Your task to perform on an android device: install app "Upside-Cash back on gas & food" Image 0: 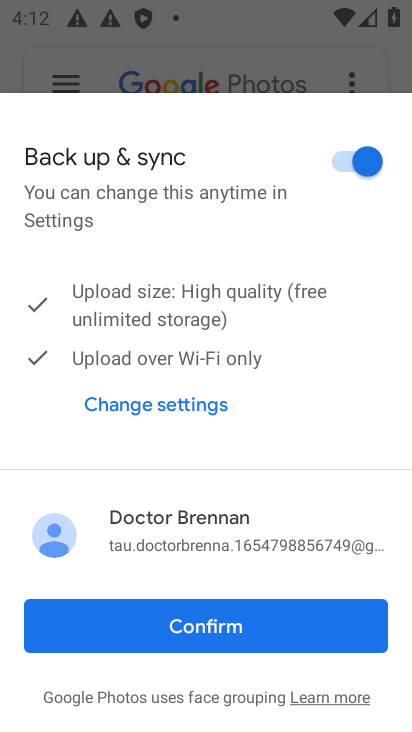
Step 0: press home button
Your task to perform on an android device: install app "Upside-Cash back on gas & food" Image 1: 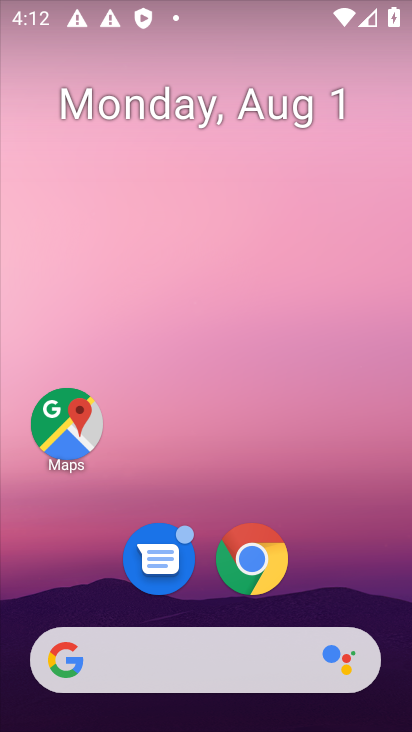
Step 1: drag from (203, 600) to (167, 0)
Your task to perform on an android device: install app "Upside-Cash back on gas & food" Image 2: 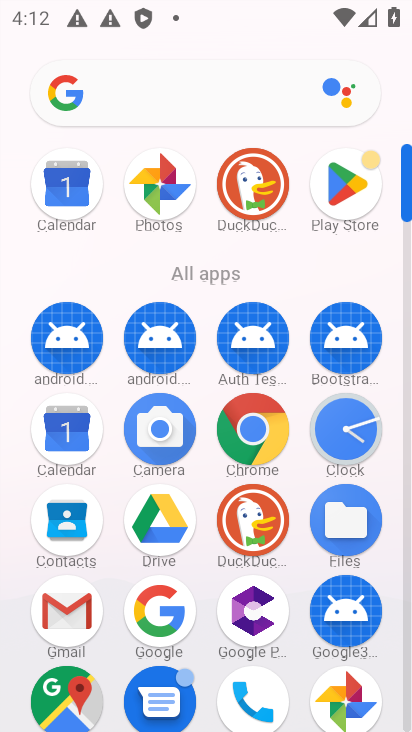
Step 2: click (321, 211)
Your task to perform on an android device: install app "Upside-Cash back on gas & food" Image 3: 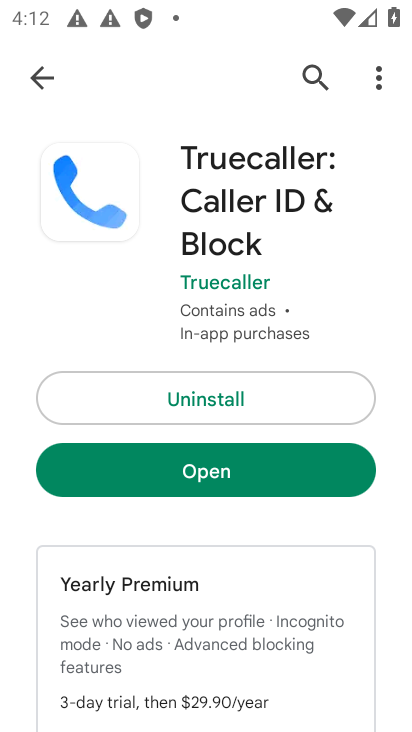
Step 3: click (55, 80)
Your task to perform on an android device: install app "Upside-Cash back on gas & food" Image 4: 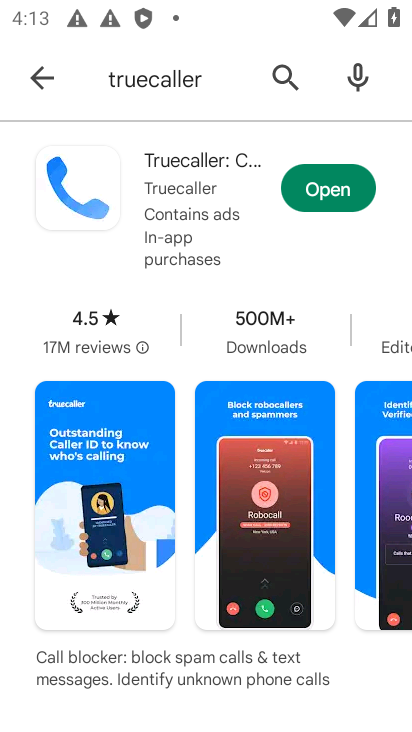
Step 4: click (153, 89)
Your task to perform on an android device: install app "Upside-Cash back on gas & food" Image 5: 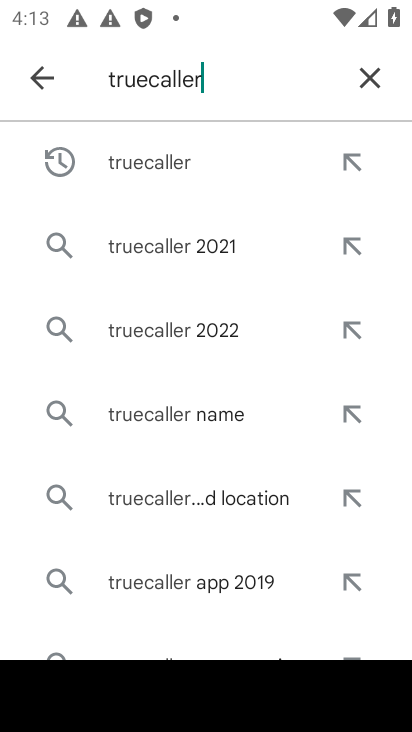
Step 5: click (363, 70)
Your task to perform on an android device: install app "Upside-Cash back on gas & food" Image 6: 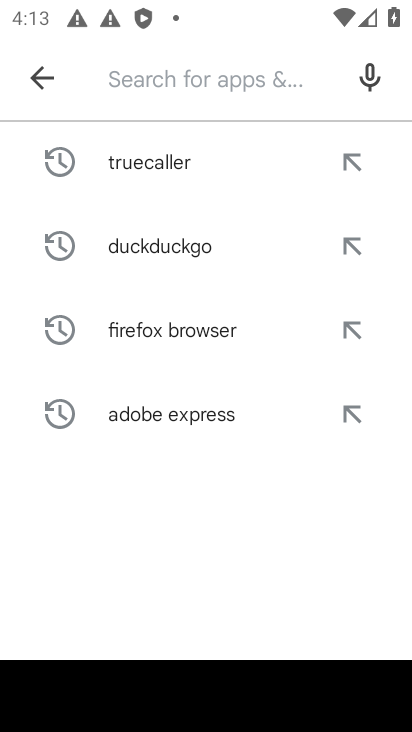
Step 6: type "upside"
Your task to perform on an android device: install app "Upside-Cash back on gas & food" Image 7: 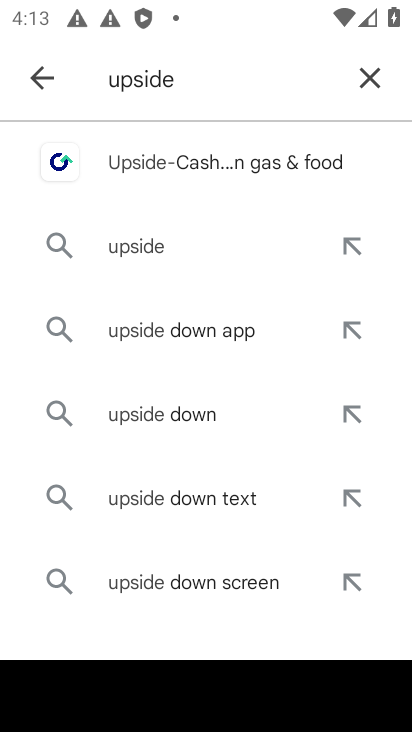
Step 7: click (153, 162)
Your task to perform on an android device: install app "Upside-Cash back on gas & food" Image 8: 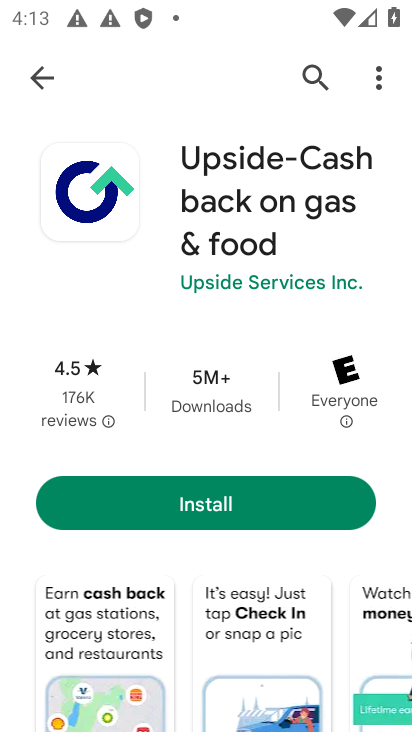
Step 8: click (224, 505)
Your task to perform on an android device: install app "Upside-Cash back on gas & food" Image 9: 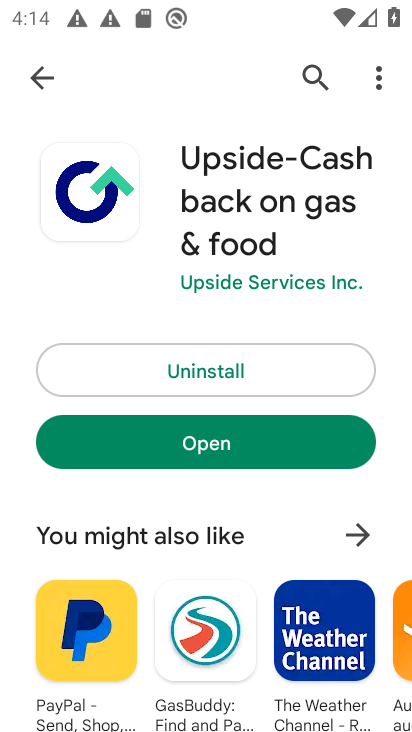
Step 9: task complete